Your task to perform on an android device: Go to Amazon Image 0: 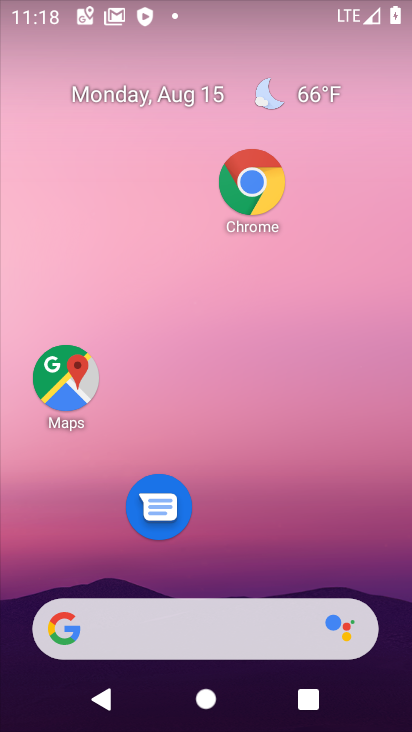
Step 0: drag from (301, 566) to (273, 22)
Your task to perform on an android device: Go to Amazon Image 1: 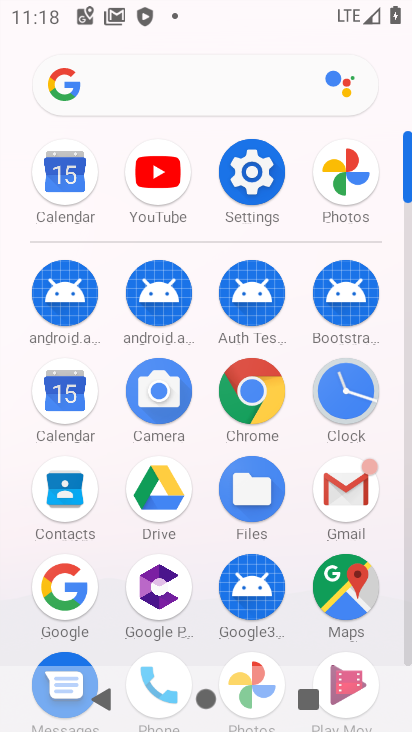
Step 1: click (245, 375)
Your task to perform on an android device: Go to Amazon Image 2: 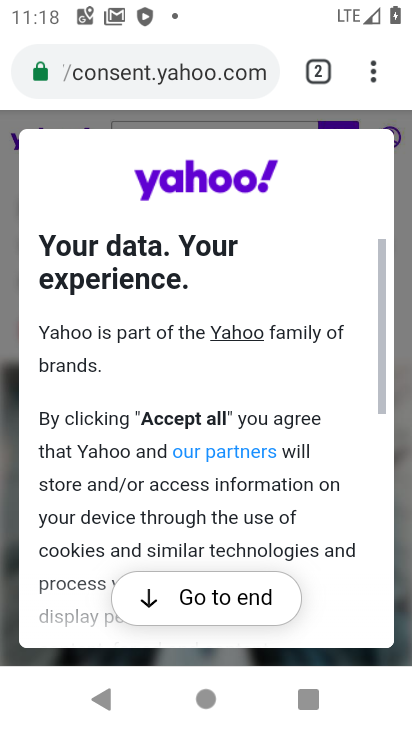
Step 2: click (158, 72)
Your task to perform on an android device: Go to Amazon Image 3: 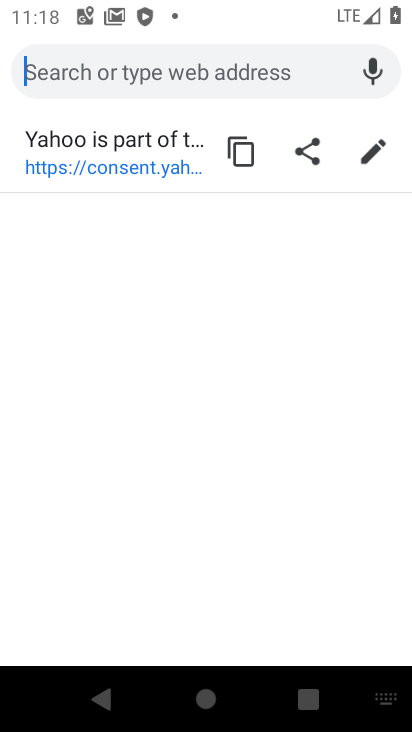
Step 3: type "amazone"
Your task to perform on an android device: Go to Amazon Image 4: 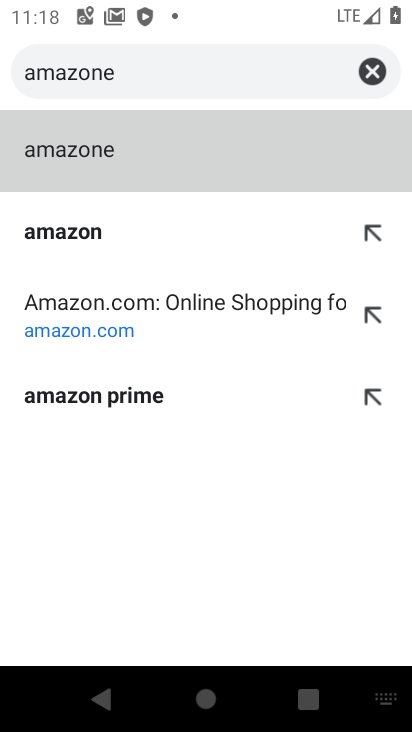
Step 4: click (91, 176)
Your task to perform on an android device: Go to Amazon Image 5: 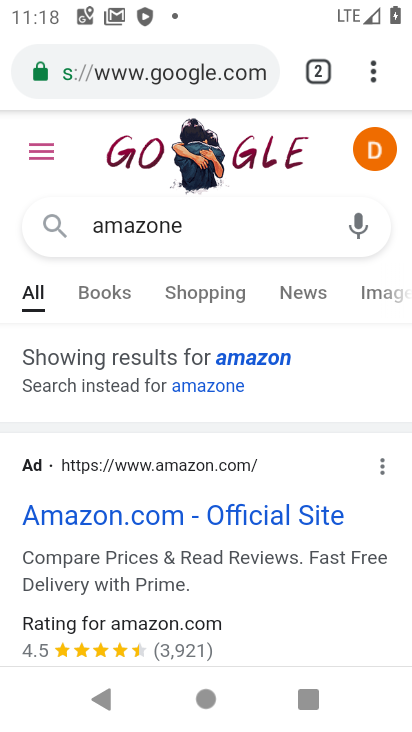
Step 5: click (126, 506)
Your task to perform on an android device: Go to Amazon Image 6: 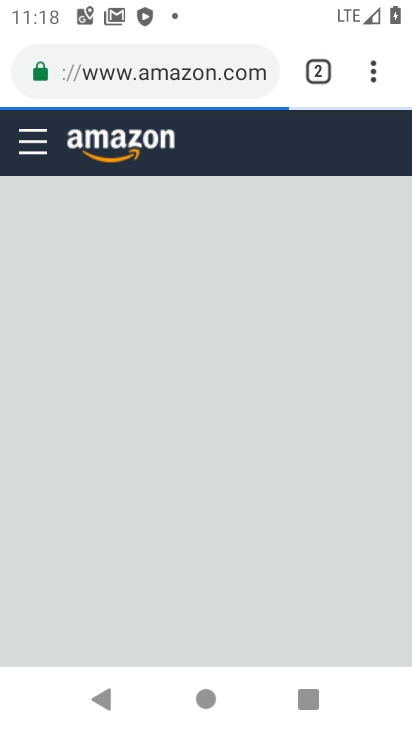
Step 6: task complete